Your task to perform on an android device: toggle improve location accuracy Image 0: 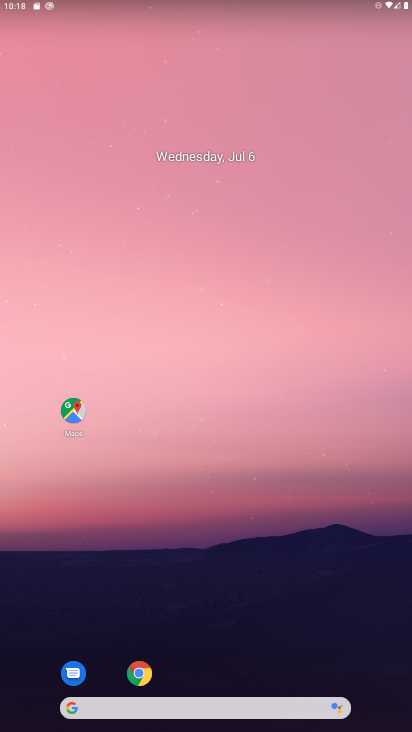
Step 0: drag from (303, 12) to (254, 589)
Your task to perform on an android device: toggle improve location accuracy Image 1: 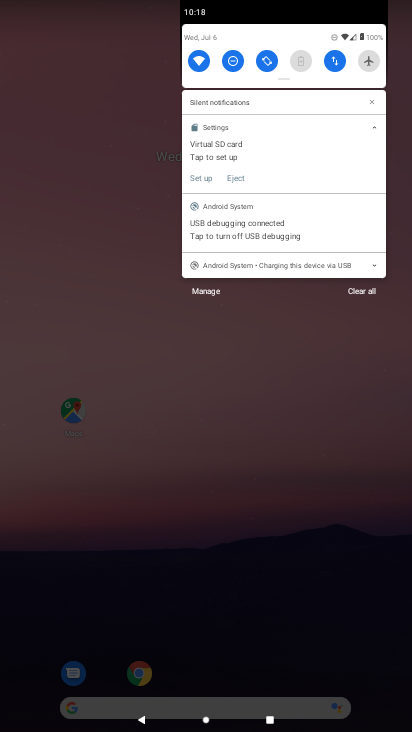
Step 1: drag from (311, 69) to (317, 567)
Your task to perform on an android device: toggle improve location accuracy Image 2: 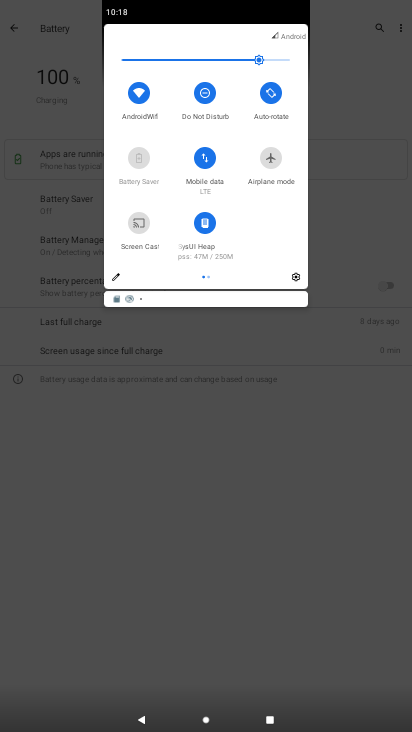
Step 2: click (293, 273)
Your task to perform on an android device: toggle improve location accuracy Image 3: 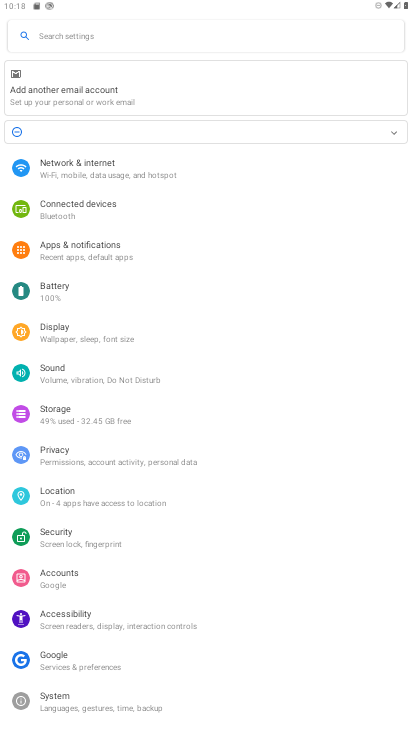
Step 3: click (79, 500)
Your task to perform on an android device: toggle improve location accuracy Image 4: 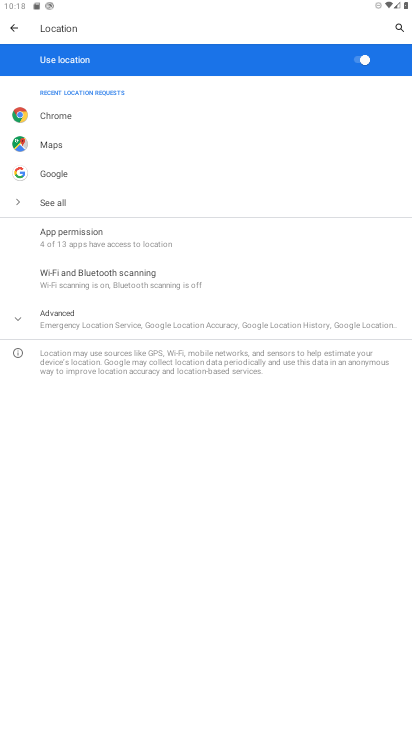
Step 4: click (107, 318)
Your task to perform on an android device: toggle improve location accuracy Image 5: 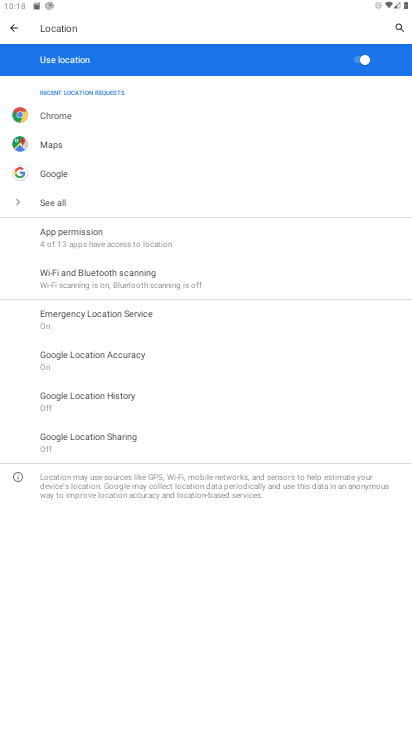
Step 5: click (142, 365)
Your task to perform on an android device: toggle improve location accuracy Image 6: 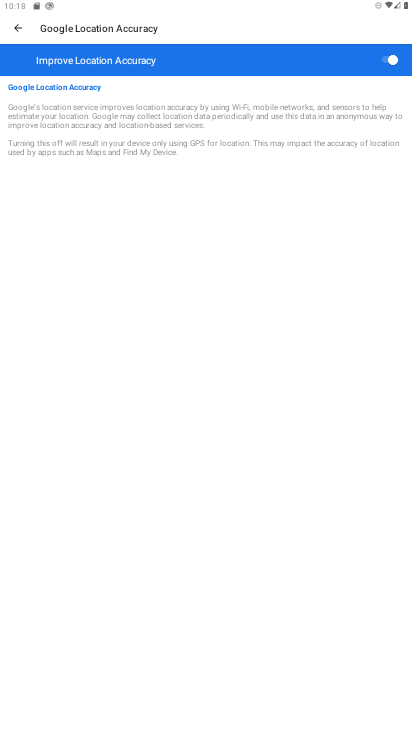
Step 6: click (381, 63)
Your task to perform on an android device: toggle improve location accuracy Image 7: 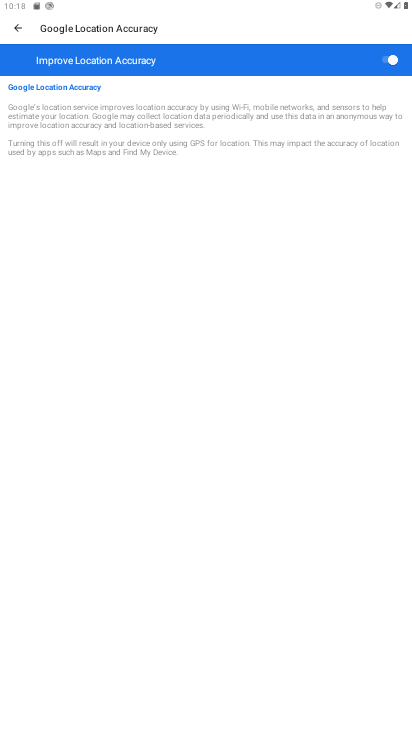
Step 7: click (381, 63)
Your task to perform on an android device: toggle improve location accuracy Image 8: 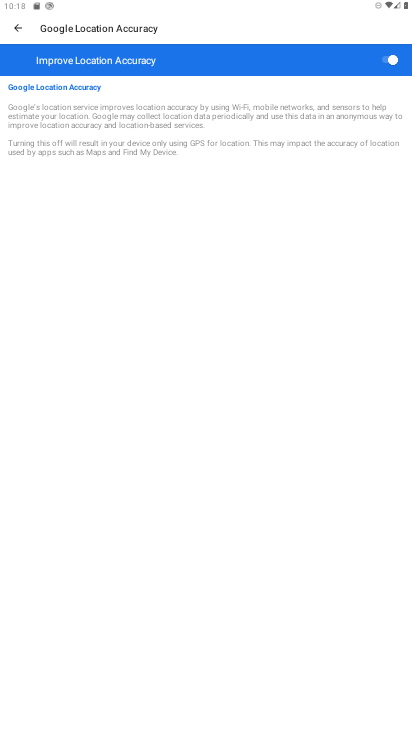
Step 8: click (381, 63)
Your task to perform on an android device: toggle improve location accuracy Image 9: 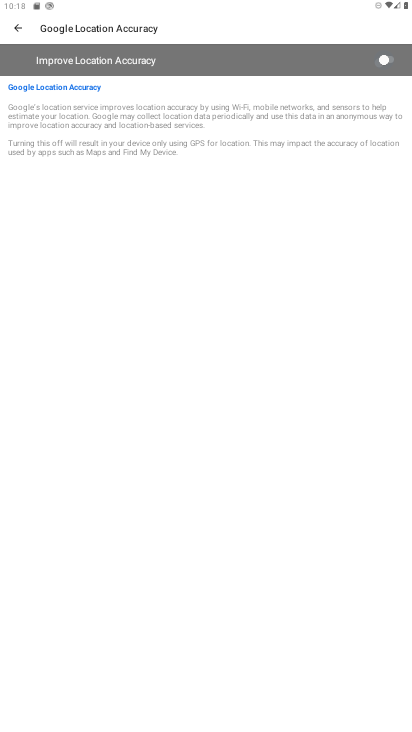
Step 9: click (381, 63)
Your task to perform on an android device: toggle improve location accuracy Image 10: 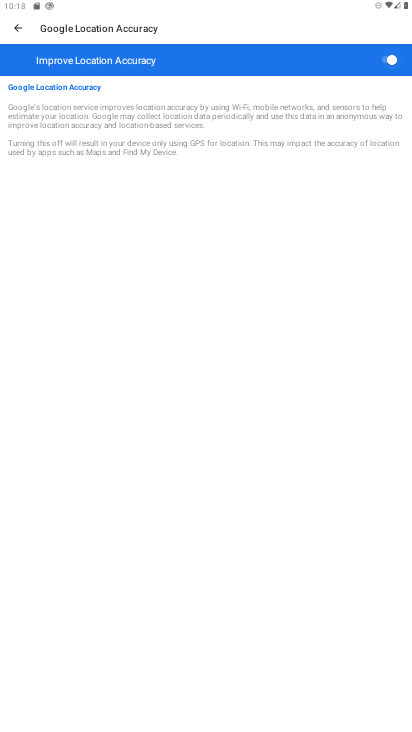
Step 10: click (381, 63)
Your task to perform on an android device: toggle improve location accuracy Image 11: 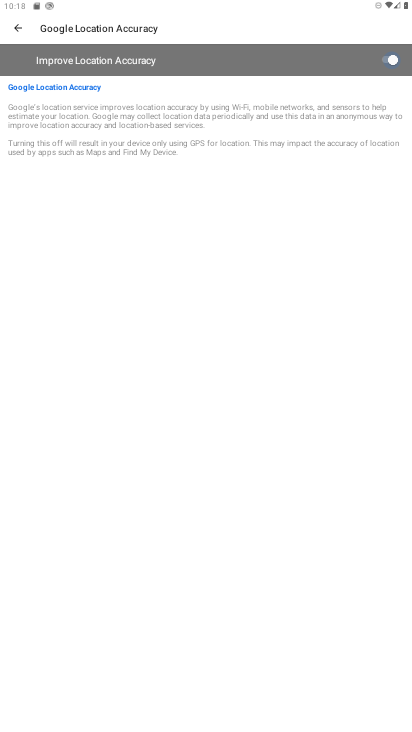
Step 11: click (381, 63)
Your task to perform on an android device: toggle improve location accuracy Image 12: 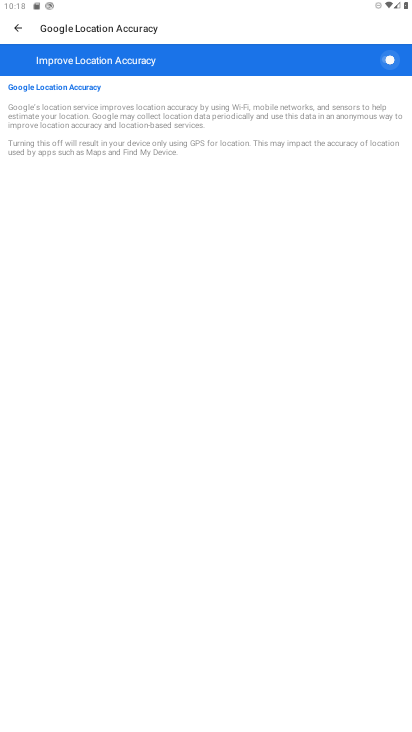
Step 12: click (381, 63)
Your task to perform on an android device: toggle improve location accuracy Image 13: 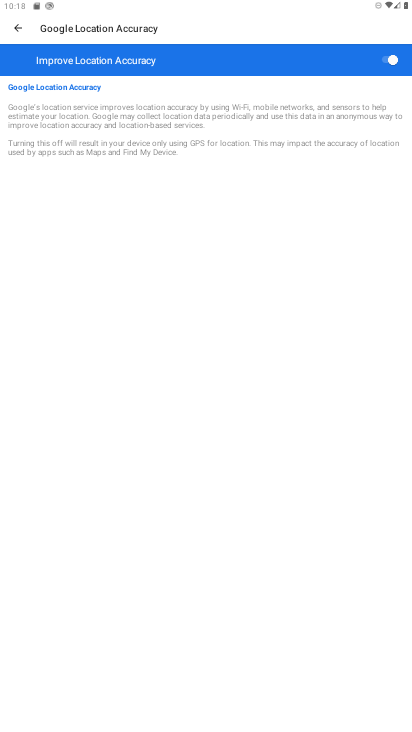
Step 13: click (381, 63)
Your task to perform on an android device: toggle improve location accuracy Image 14: 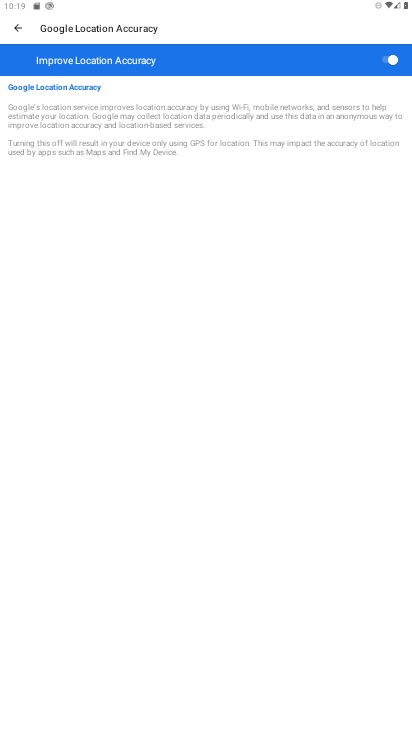
Step 14: task complete